Your task to perform on an android device: Go to Google Image 0: 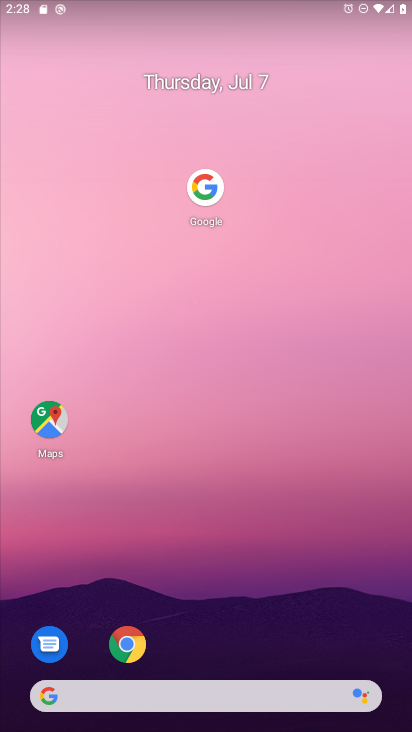
Step 0: click (202, 188)
Your task to perform on an android device: Go to Google Image 1: 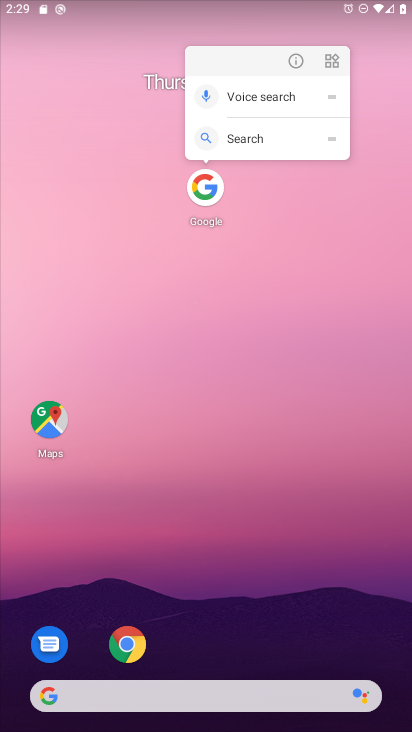
Step 1: click (202, 188)
Your task to perform on an android device: Go to Google Image 2: 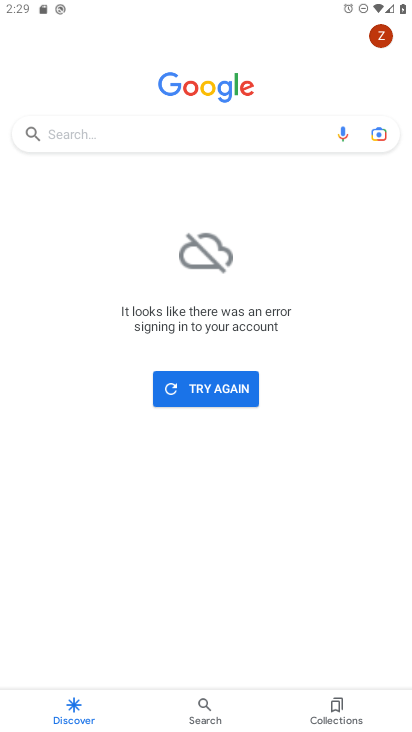
Step 2: click (233, 393)
Your task to perform on an android device: Go to Google Image 3: 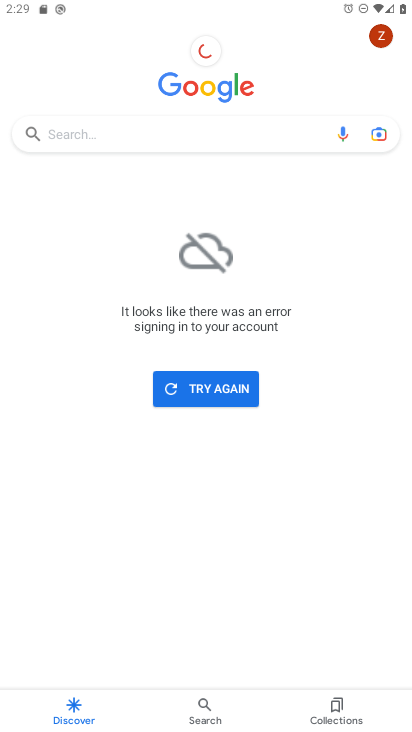
Step 3: click (211, 380)
Your task to perform on an android device: Go to Google Image 4: 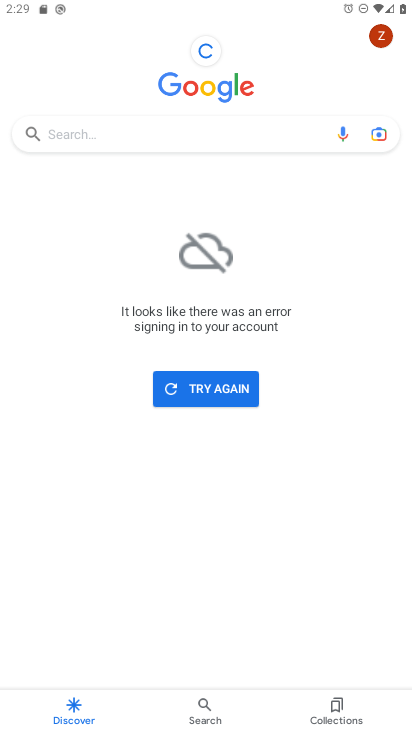
Step 4: task complete